Your task to perform on an android device: See recent photos Image 0: 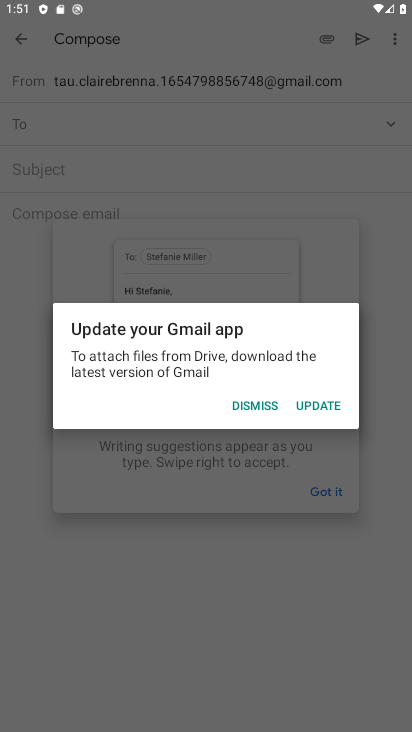
Step 0: press home button
Your task to perform on an android device: See recent photos Image 1: 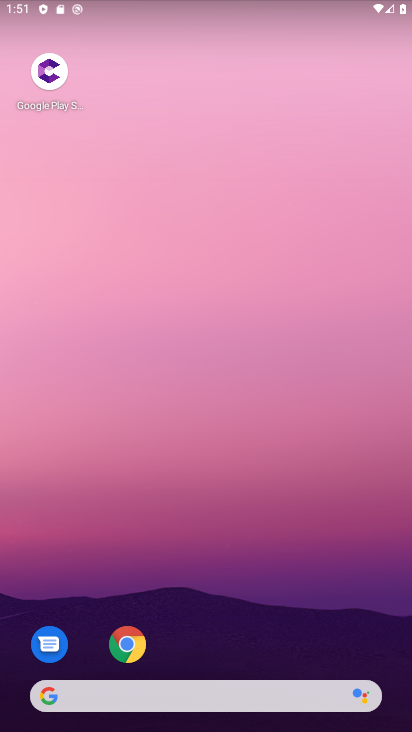
Step 1: drag from (9, 688) to (196, 192)
Your task to perform on an android device: See recent photos Image 2: 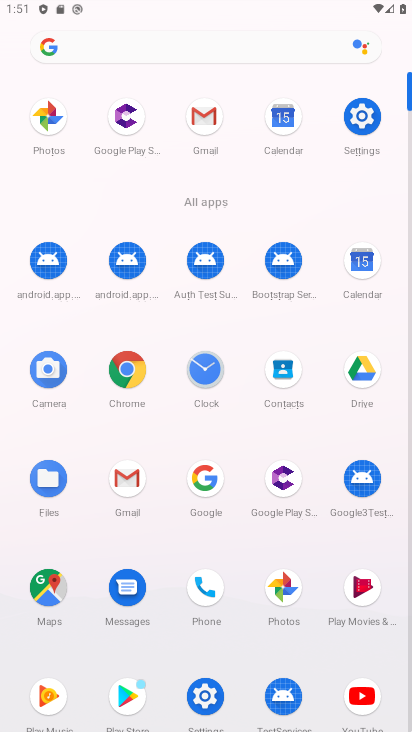
Step 2: click (284, 585)
Your task to perform on an android device: See recent photos Image 3: 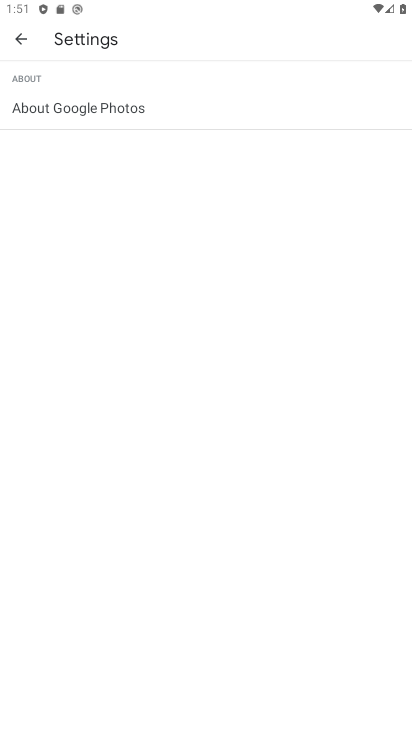
Step 3: click (21, 39)
Your task to perform on an android device: See recent photos Image 4: 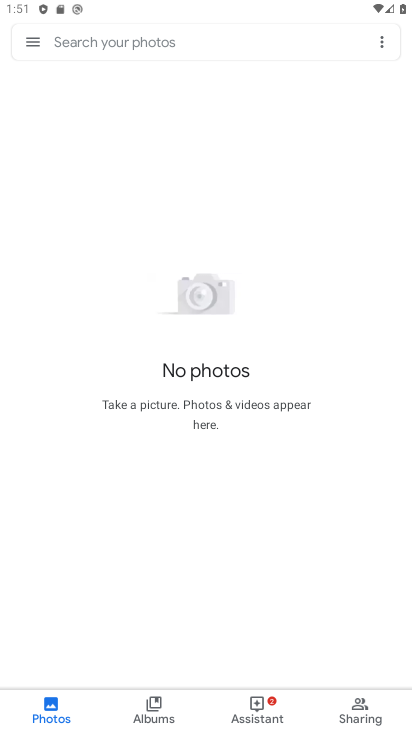
Step 4: click (13, 36)
Your task to perform on an android device: See recent photos Image 5: 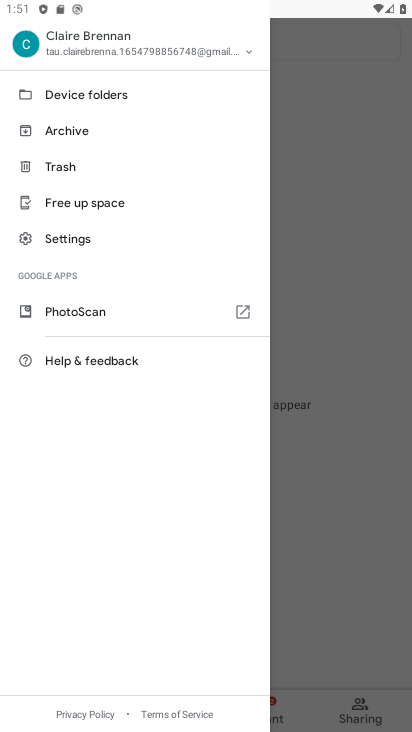
Step 5: click (294, 129)
Your task to perform on an android device: See recent photos Image 6: 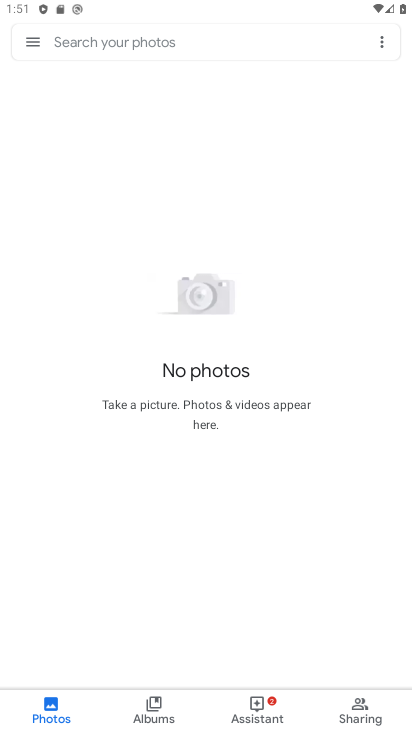
Step 6: task complete